Your task to perform on an android device: turn on translation in the chrome app Image 0: 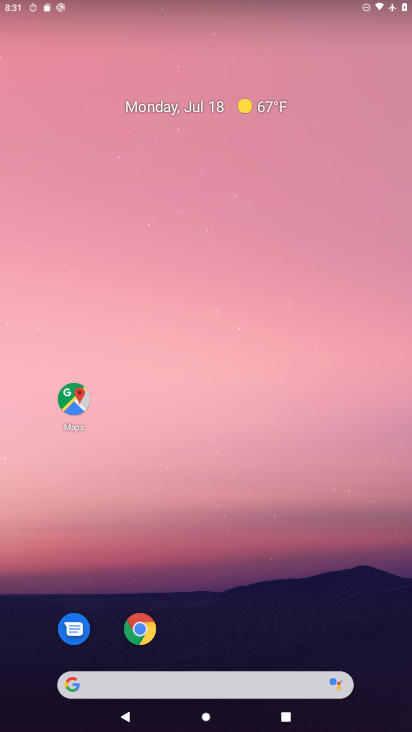
Step 0: drag from (213, 677) to (196, 113)
Your task to perform on an android device: turn on translation in the chrome app Image 1: 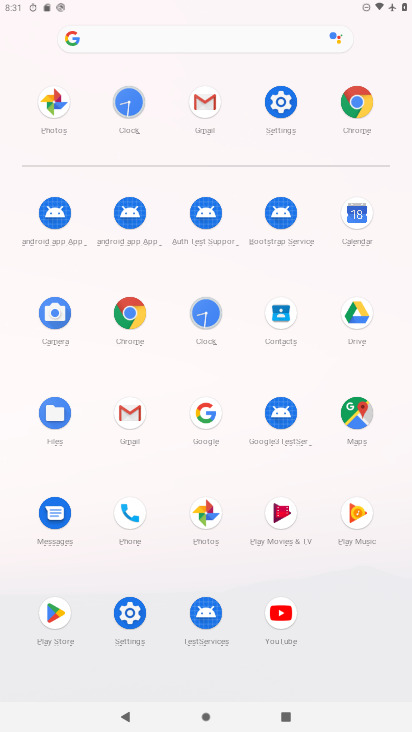
Step 1: click (369, 106)
Your task to perform on an android device: turn on translation in the chrome app Image 2: 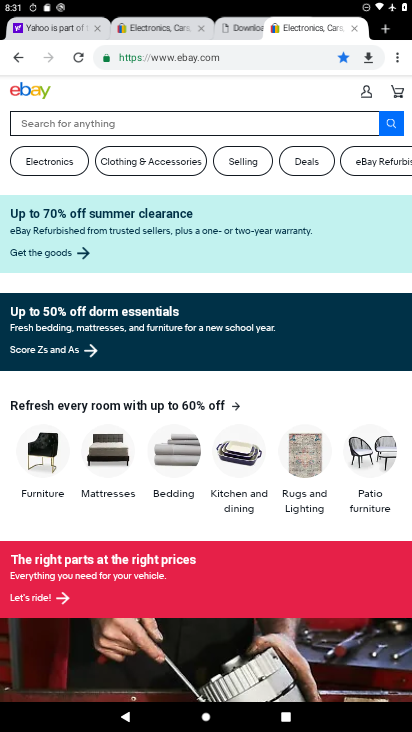
Step 2: drag from (396, 51) to (270, 382)
Your task to perform on an android device: turn on translation in the chrome app Image 3: 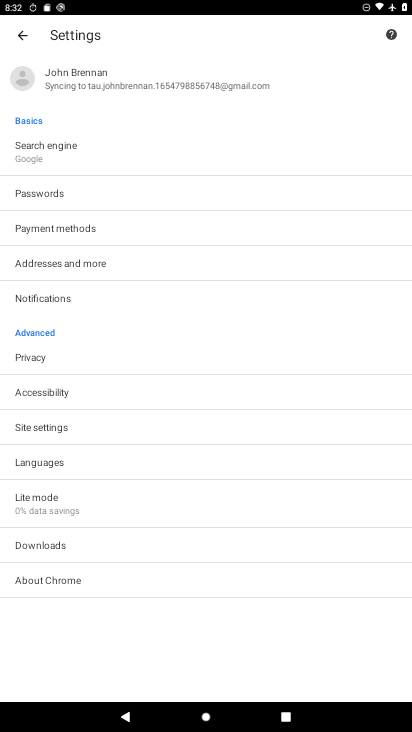
Step 3: click (50, 467)
Your task to perform on an android device: turn on translation in the chrome app Image 4: 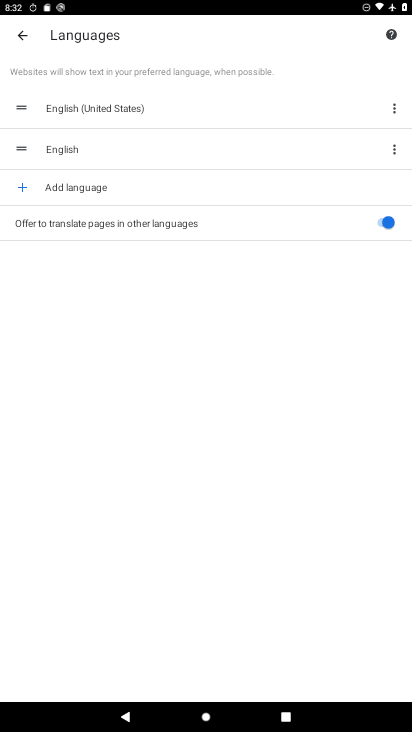
Step 4: task complete